Your task to perform on an android device: Go to Google maps Image 0: 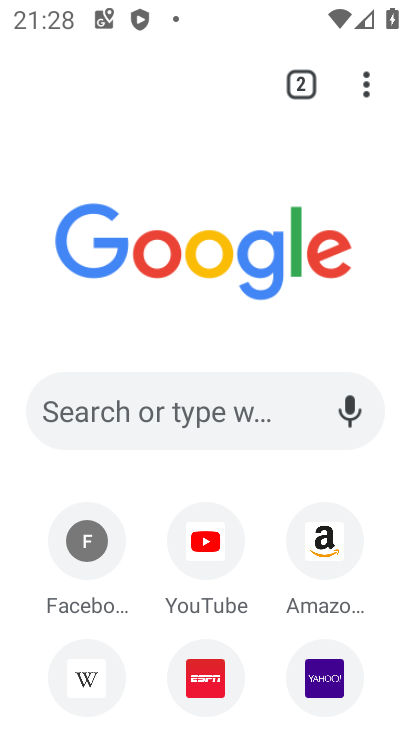
Step 0: press home button
Your task to perform on an android device: Go to Google maps Image 1: 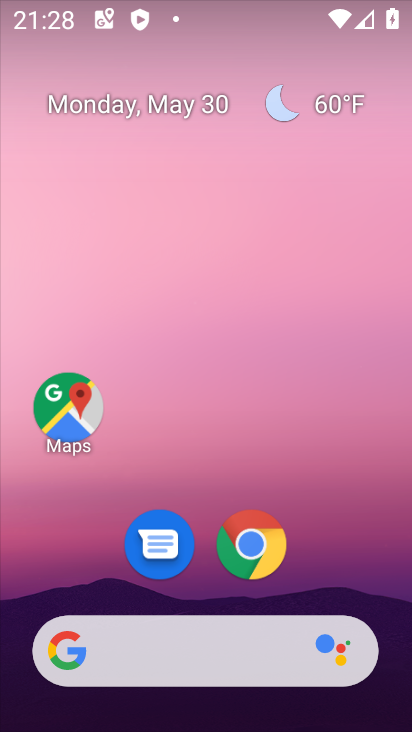
Step 1: click (68, 407)
Your task to perform on an android device: Go to Google maps Image 2: 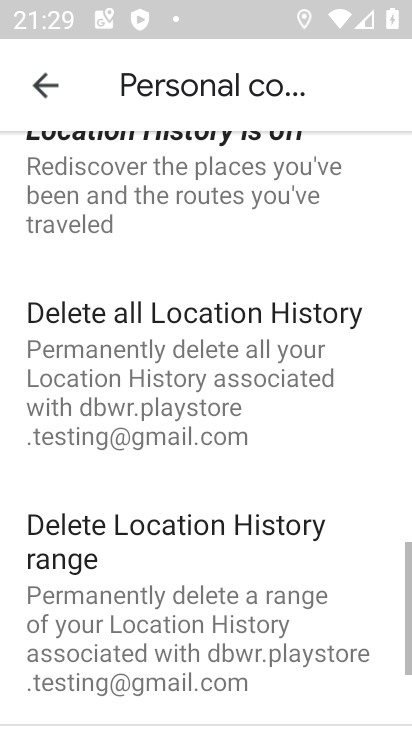
Step 2: click (56, 94)
Your task to perform on an android device: Go to Google maps Image 3: 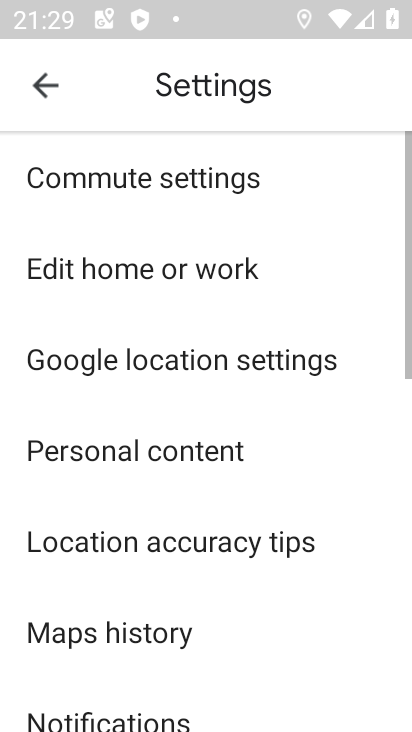
Step 3: click (56, 94)
Your task to perform on an android device: Go to Google maps Image 4: 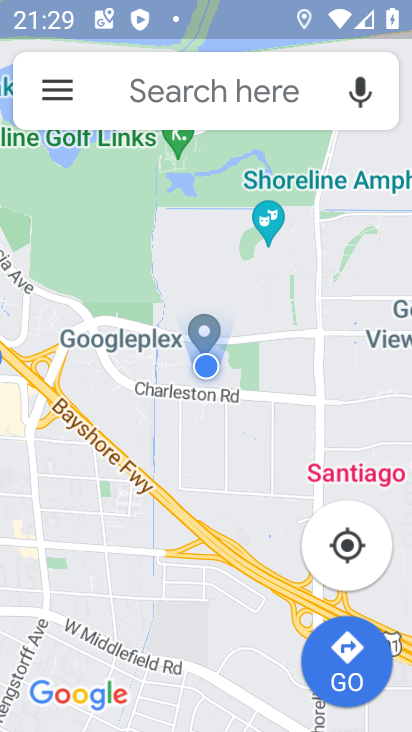
Step 4: task complete